Your task to perform on an android device: Open Google Chrome Image 0: 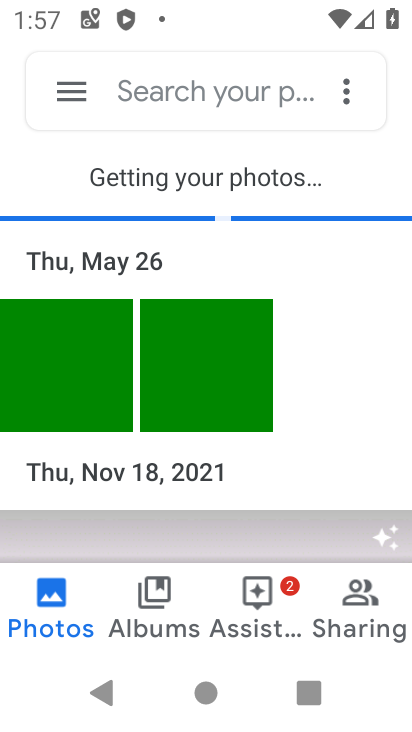
Step 0: press home button
Your task to perform on an android device: Open Google Chrome Image 1: 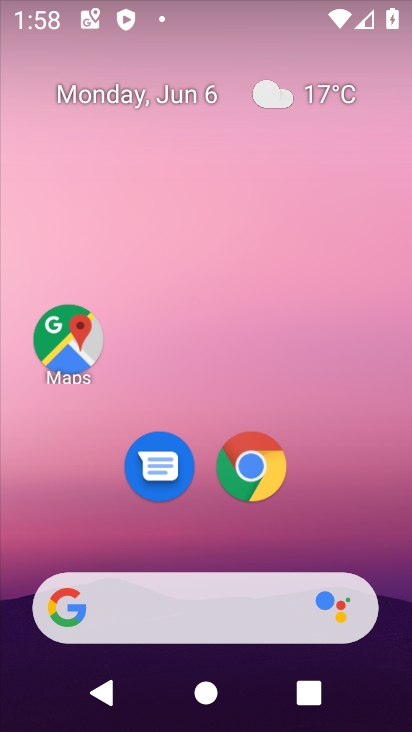
Step 1: click (229, 464)
Your task to perform on an android device: Open Google Chrome Image 2: 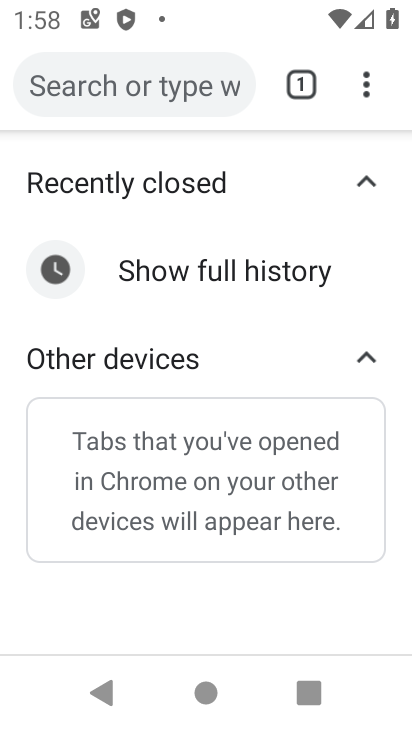
Step 2: task complete